Your task to perform on an android device: Go to ESPN.com Image 0: 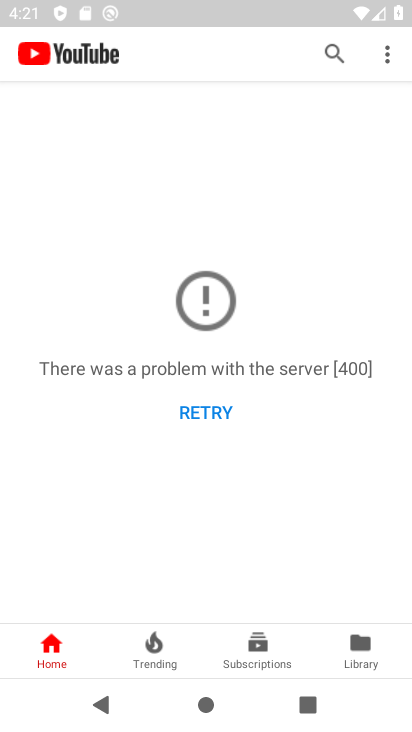
Step 0: press home button
Your task to perform on an android device: Go to ESPN.com Image 1: 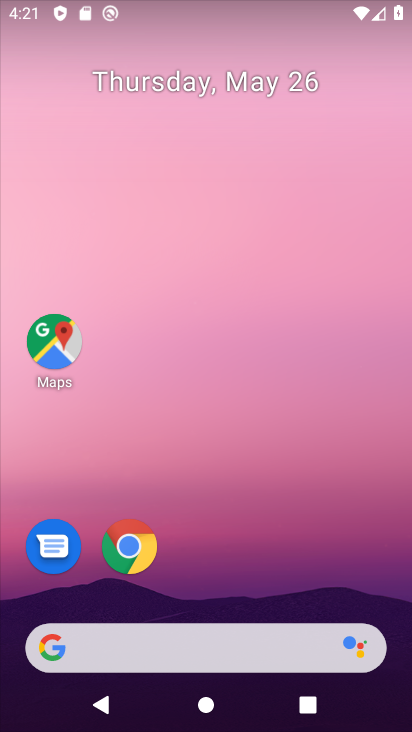
Step 1: click (130, 556)
Your task to perform on an android device: Go to ESPN.com Image 2: 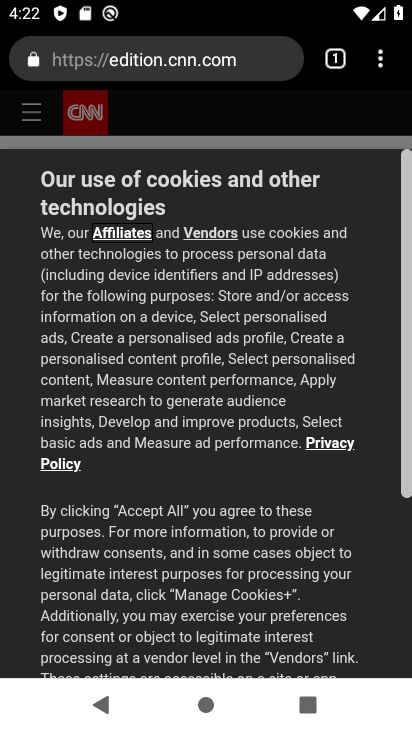
Step 2: click (179, 66)
Your task to perform on an android device: Go to ESPN.com Image 3: 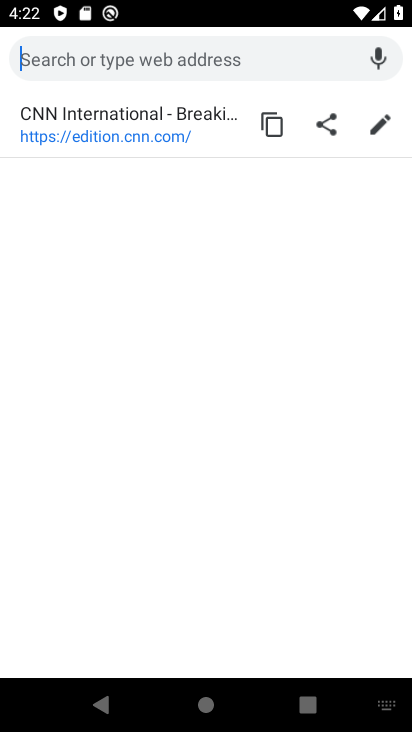
Step 3: click (200, 66)
Your task to perform on an android device: Go to ESPN.com Image 4: 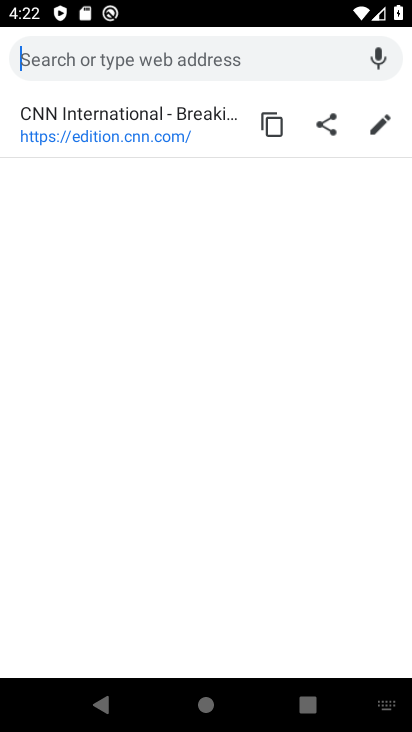
Step 4: type "espn.com"
Your task to perform on an android device: Go to ESPN.com Image 5: 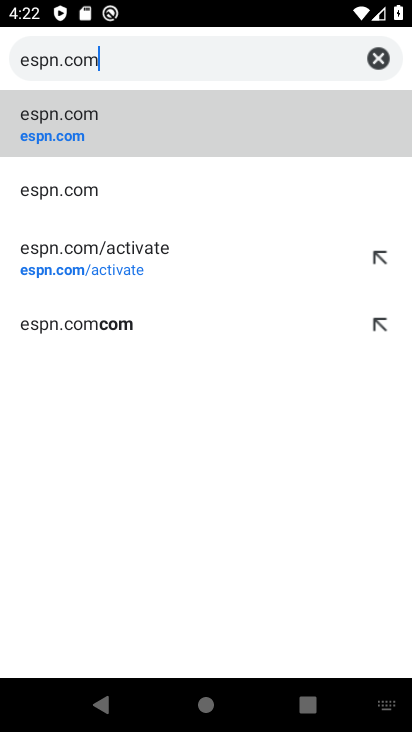
Step 5: click (47, 139)
Your task to perform on an android device: Go to ESPN.com Image 6: 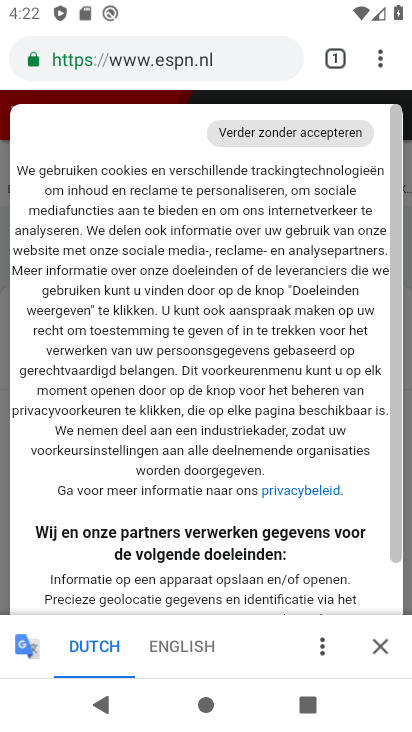
Step 6: task complete